Your task to perform on an android device: delete location history Image 0: 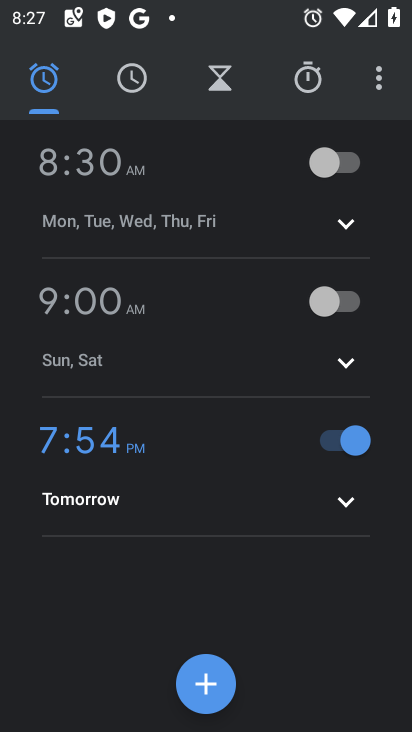
Step 0: press home button
Your task to perform on an android device: delete location history Image 1: 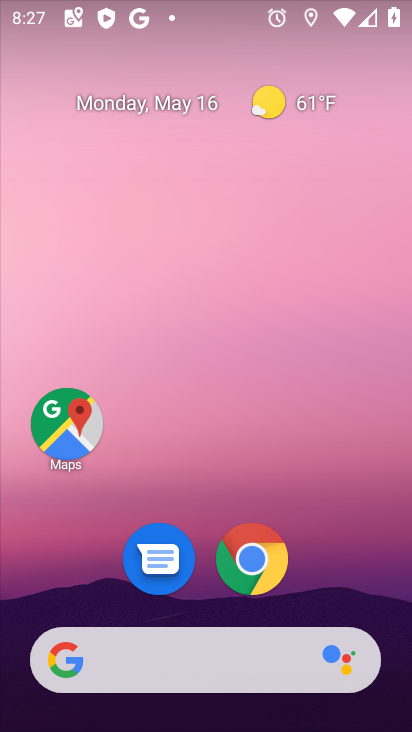
Step 1: drag from (365, 585) to (340, 131)
Your task to perform on an android device: delete location history Image 2: 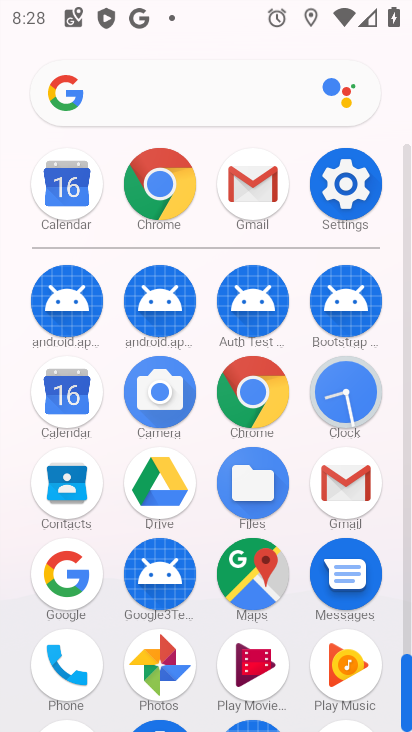
Step 2: click (361, 185)
Your task to perform on an android device: delete location history Image 3: 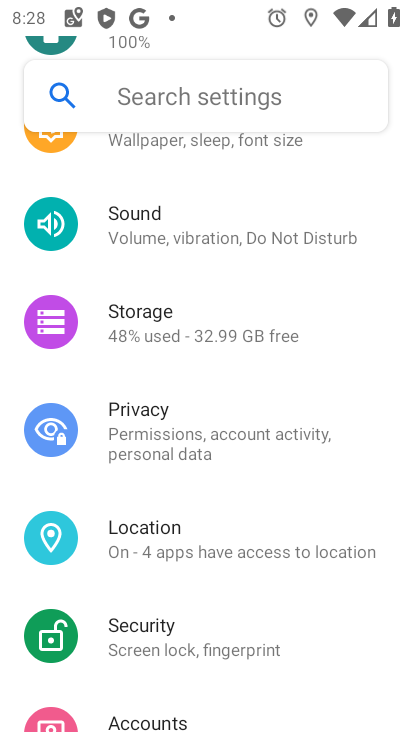
Step 3: click (209, 536)
Your task to perform on an android device: delete location history Image 4: 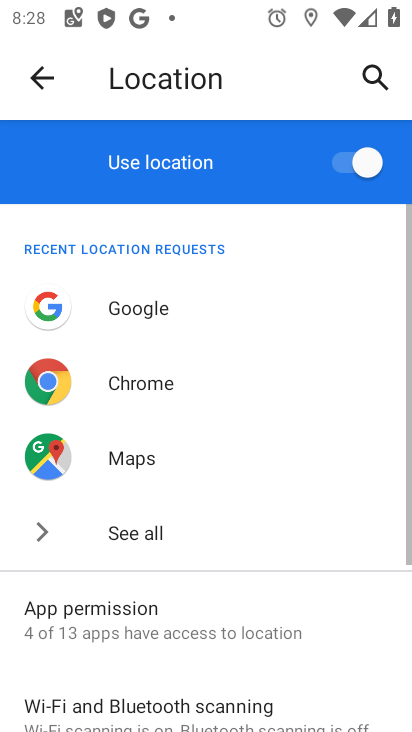
Step 4: drag from (304, 661) to (291, 392)
Your task to perform on an android device: delete location history Image 5: 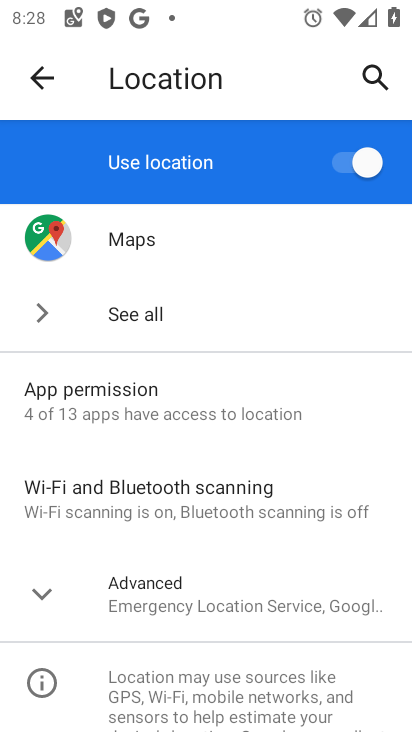
Step 5: click (316, 614)
Your task to perform on an android device: delete location history Image 6: 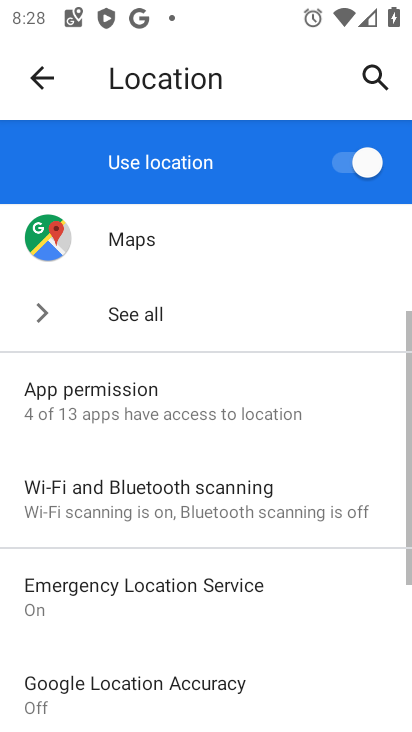
Step 6: drag from (306, 647) to (309, 405)
Your task to perform on an android device: delete location history Image 7: 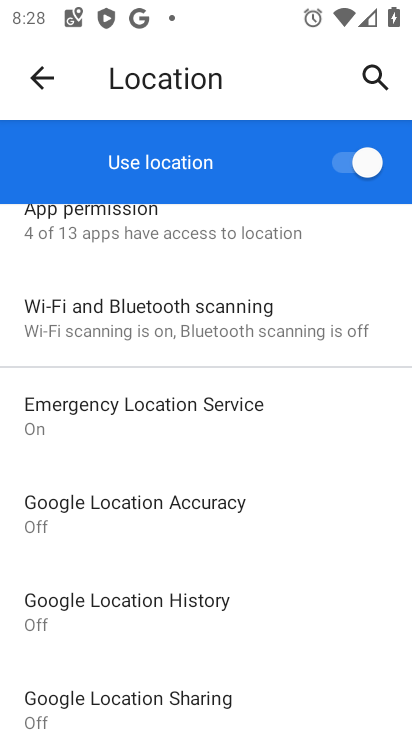
Step 7: drag from (299, 659) to (272, 385)
Your task to perform on an android device: delete location history Image 8: 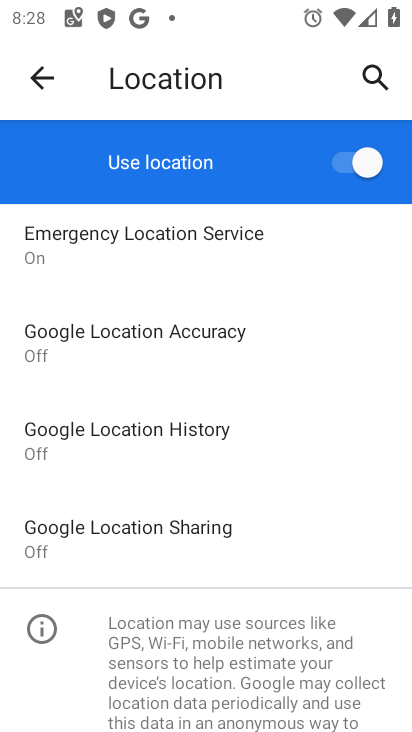
Step 8: click (47, 432)
Your task to perform on an android device: delete location history Image 9: 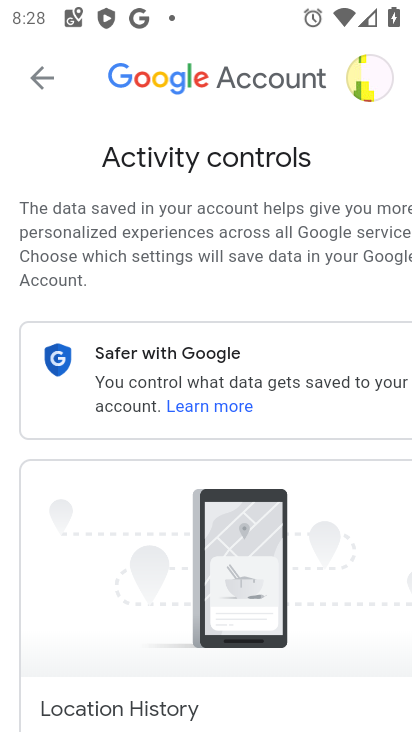
Step 9: drag from (272, 700) to (281, 357)
Your task to perform on an android device: delete location history Image 10: 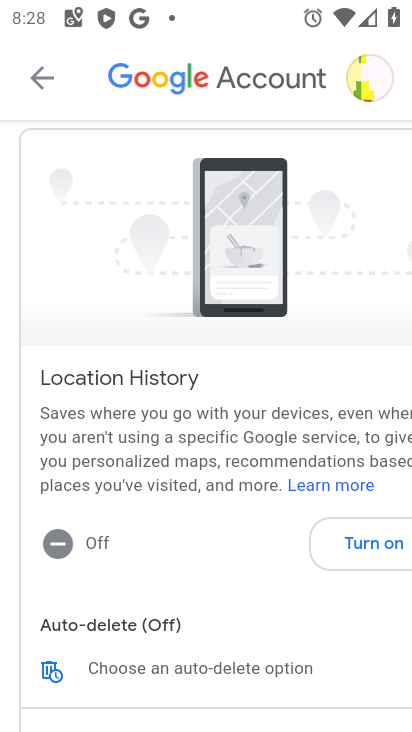
Step 10: drag from (272, 616) to (280, 308)
Your task to perform on an android device: delete location history Image 11: 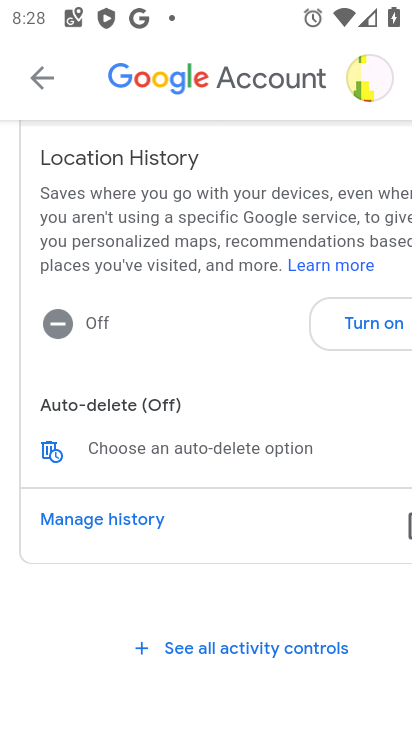
Step 11: click (126, 523)
Your task to perform on an android device: delete location history Image 12: 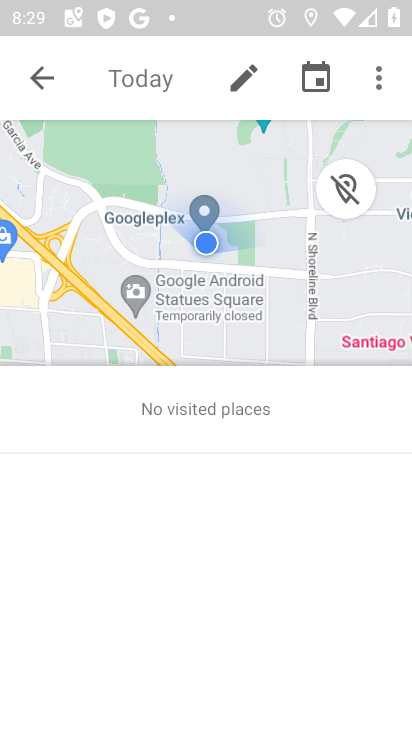
Step 12: click (381, 87)
Your task to perform on an android device: delete location history Image 13: 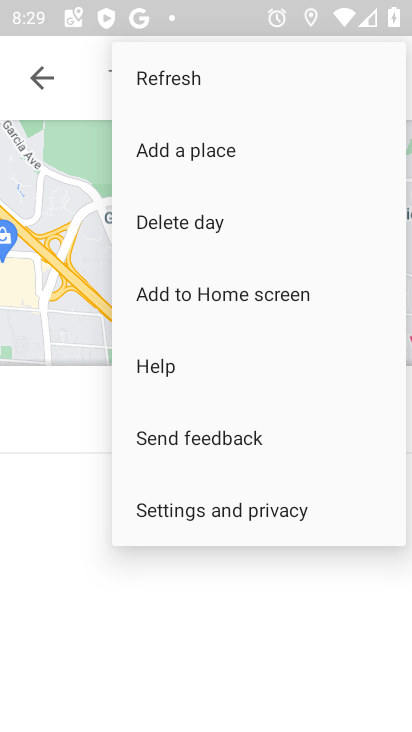
Step 13: click (248, 528)
Your task to perform on an android device: delete location history Image 14: 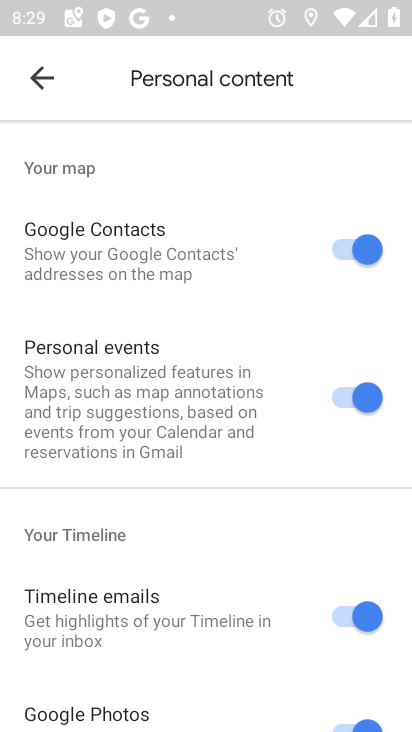
Step 14: drag from (234, 640) to (262, 306)
Your task to perform on an android device: delete location history Image 15: 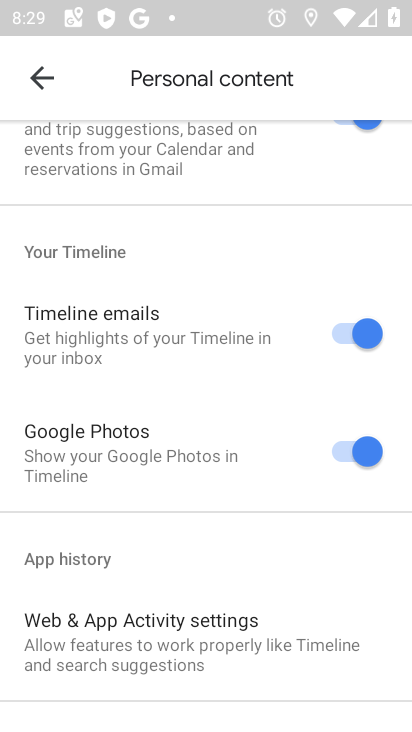
Step 15: drag from (245, 253) to (243, 613)
Your task to perform on an android device: delete location history Image 16: 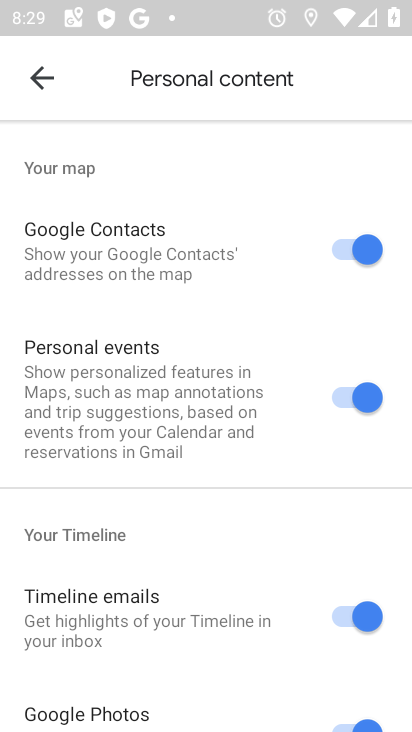
Step 16: drag from (257, 278) to (307, 236)
Your task to perform on an android device: delete location history Image 17: 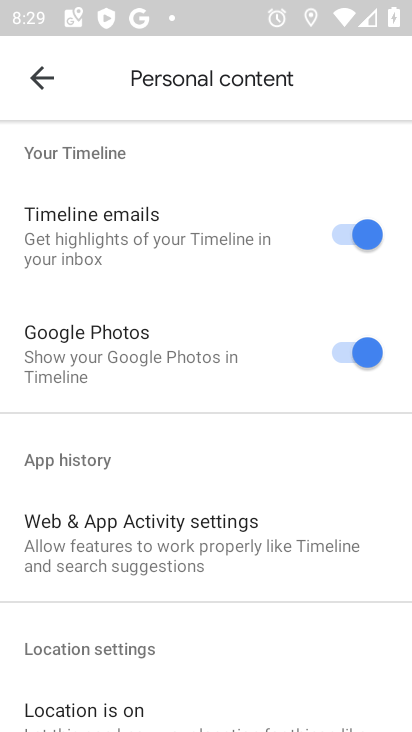
Step 17: drag from (207, 642) to (220, 266)
Your task to perform on an android device: delete location history Image 18: 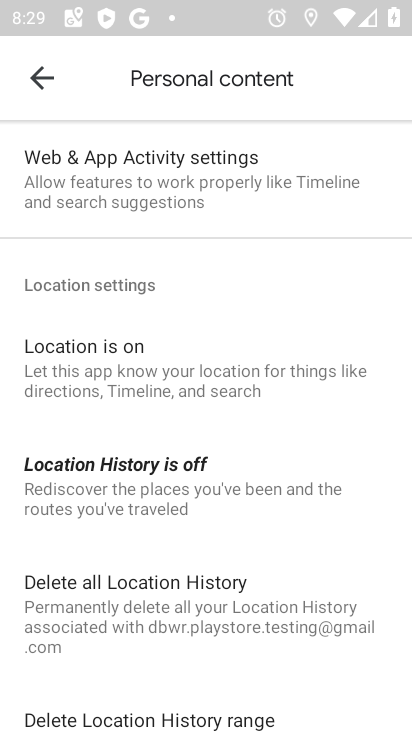
Step 18: click (200, 600)
Your task to perform on an android device: delete location history Image 19: 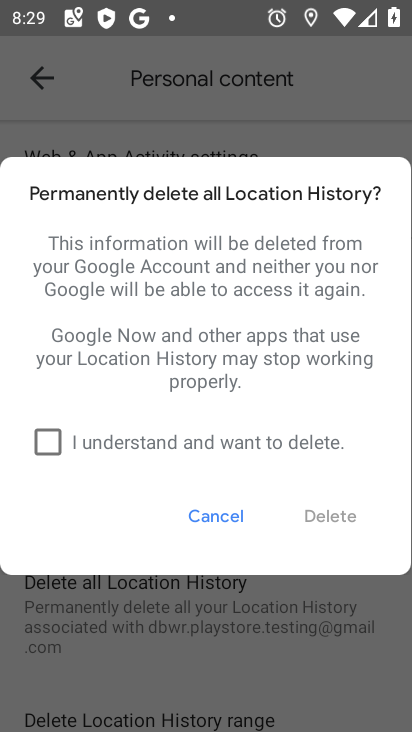
Step 19: click (47, 444)
Your task to perform on an android device: delete location history Image 20: 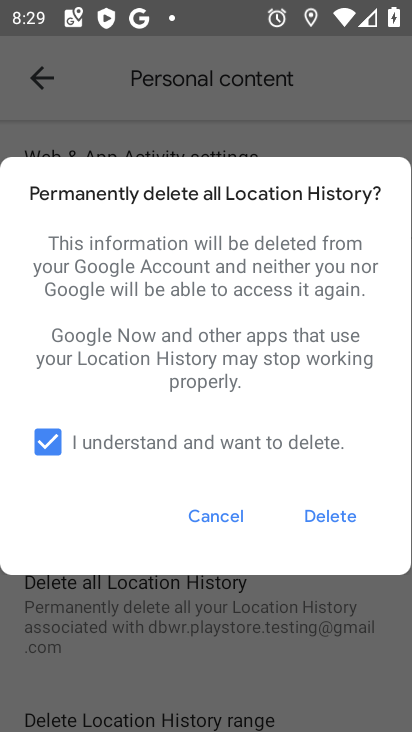
Step 20: click (325, 514)
Your task to perform on an android device: delete location history Image 21: 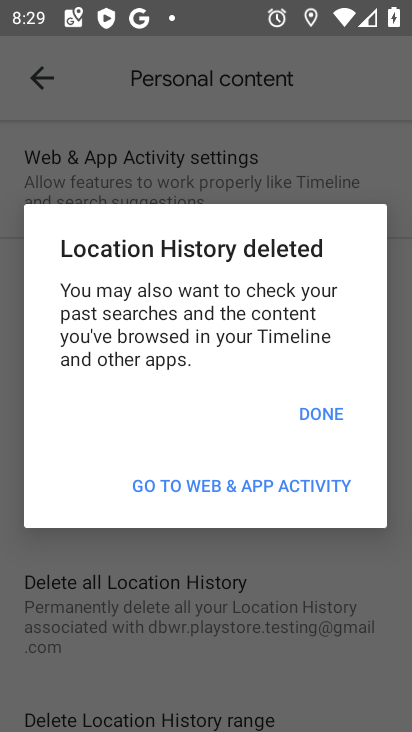
Step 21: click (323, 413)
Your task to perform on an android device: delete location history Image 22: 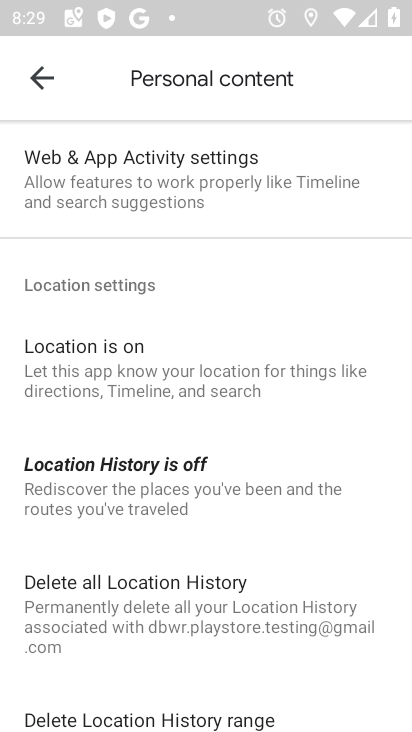
Step 22: task complete